Your task to perform on an android device: open app "WhatsApp Messenger" (install if not already installed) Image 0: 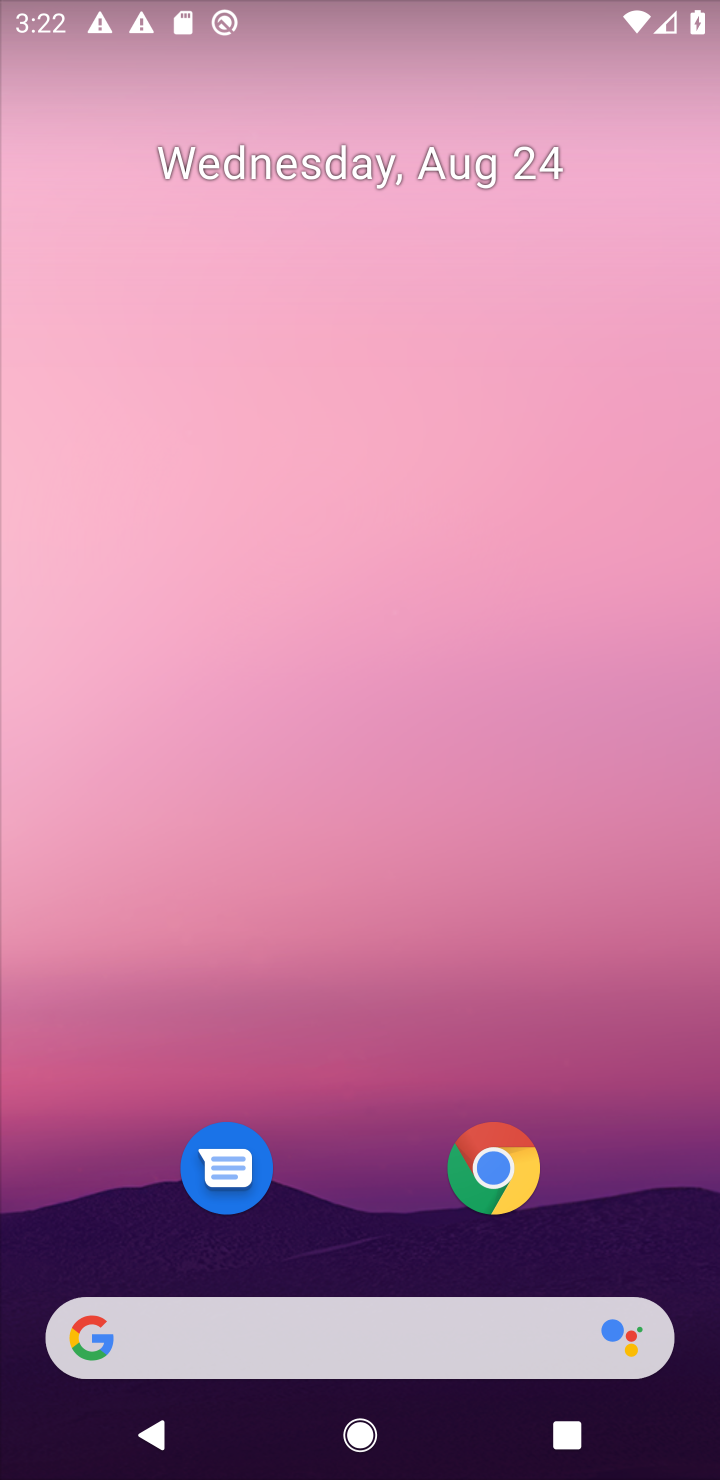
Step 0: drag from (699, 1302) to (593, 26)
Your task to perform on an android device: open app "WhatsApp Messenger" (install if not already installed) Image 1: 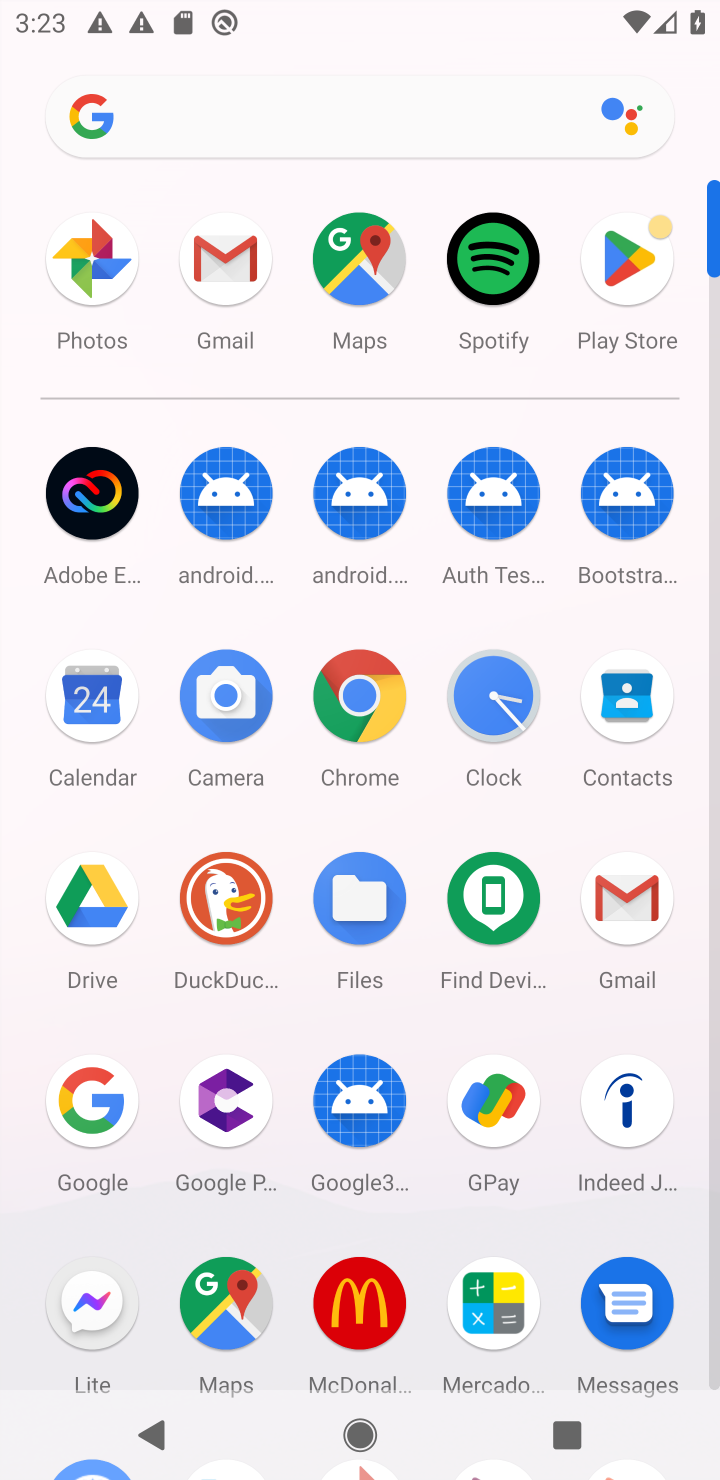
Step 1: click (711, 1309)
Your task to perform on an android device: open app "WhatsApp Messenger" (install if not already installed) Image 2: 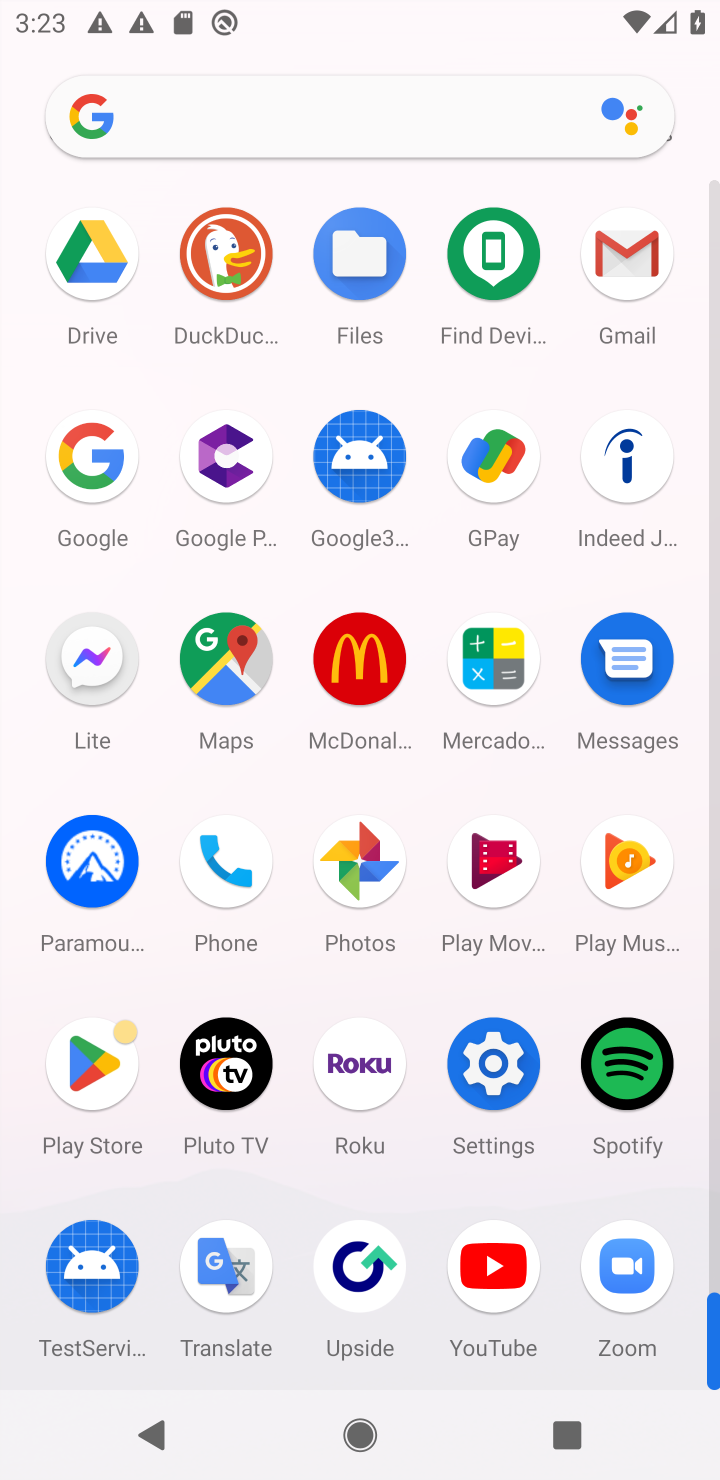
Step 2: click (95, 1051)
Your task to perform on an android device: open app "WhatsApp Messenger" (install if not already installed) Image 3: 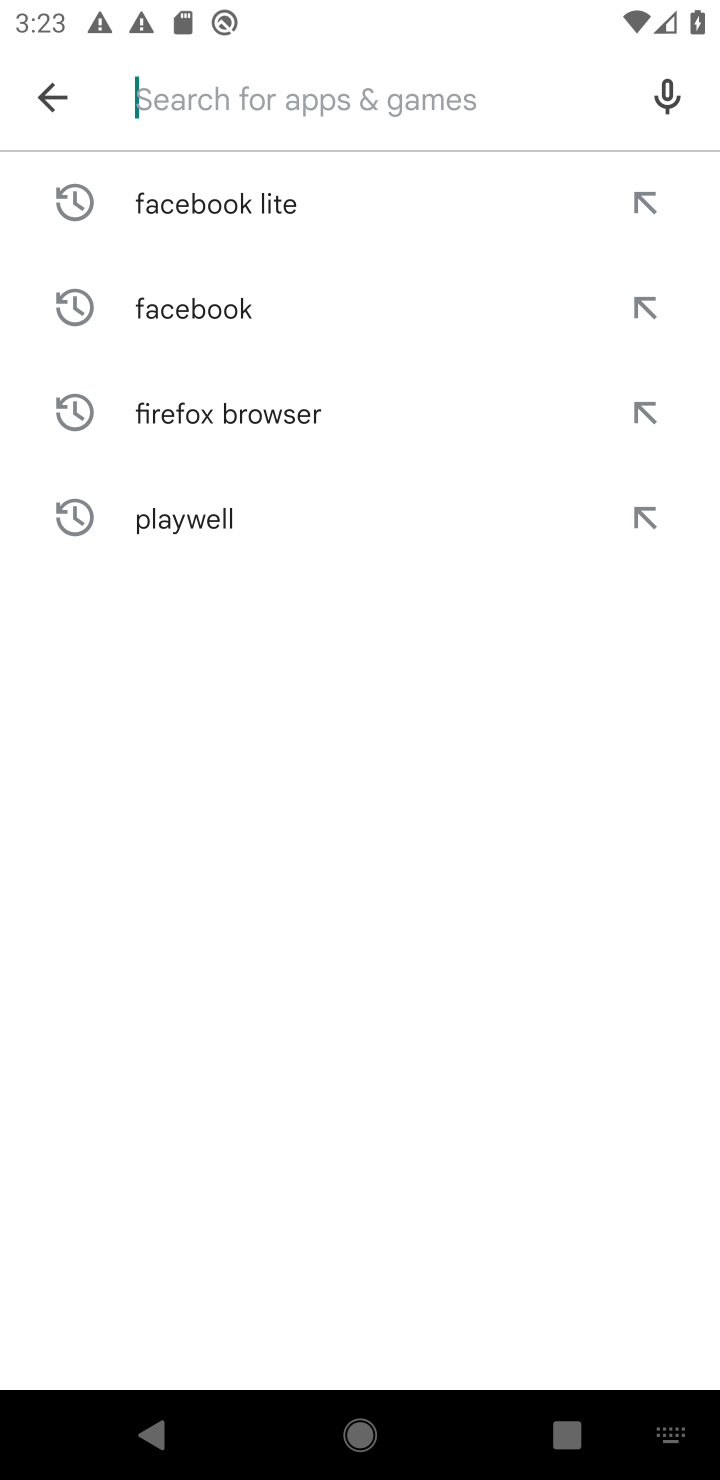
Step 3: type "WhatsApp Messenger"
Your task to perform on an android device: open app "WhatsApp Messenger" (install if not already installed) Image 4: 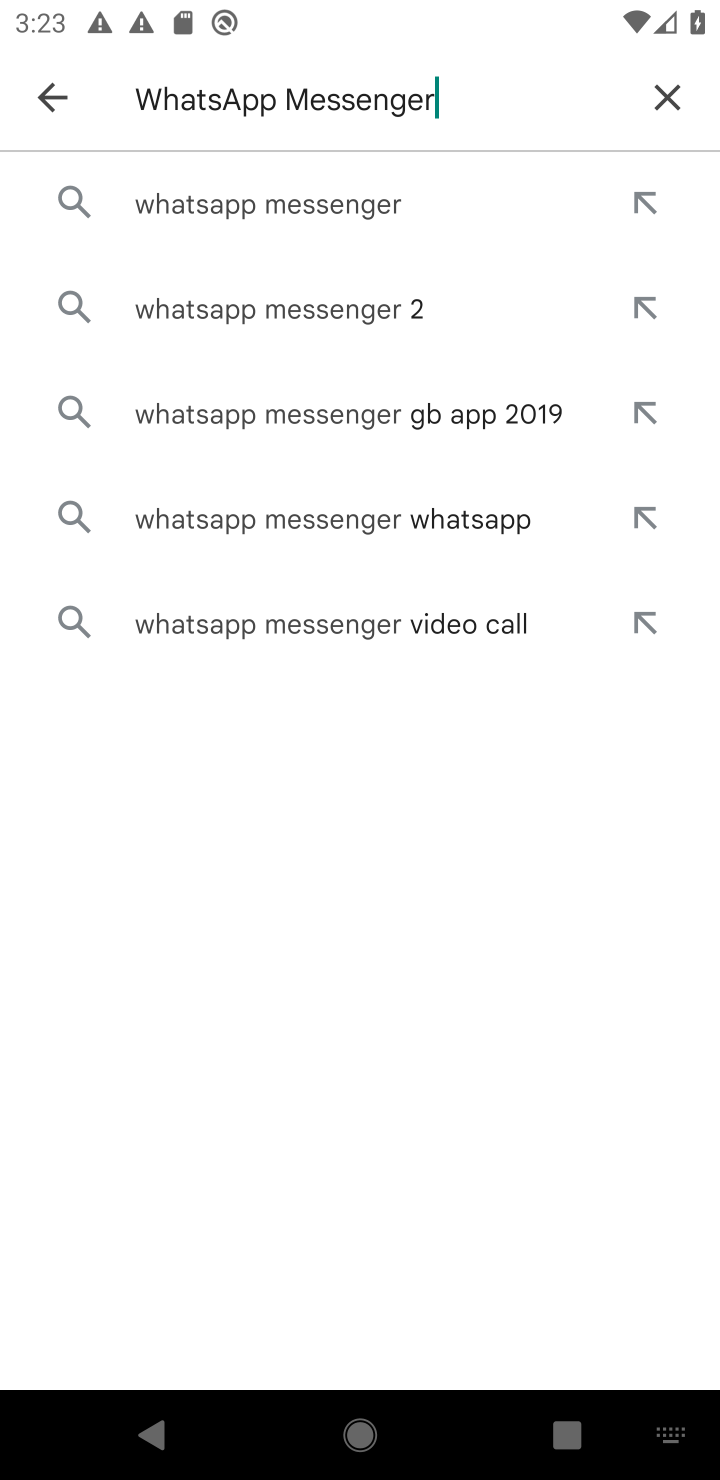
Step 4: click (234, 205)
Your task to perform on an android device: open app "WhatsApp Messenger" (install if not already installed) Image 5: 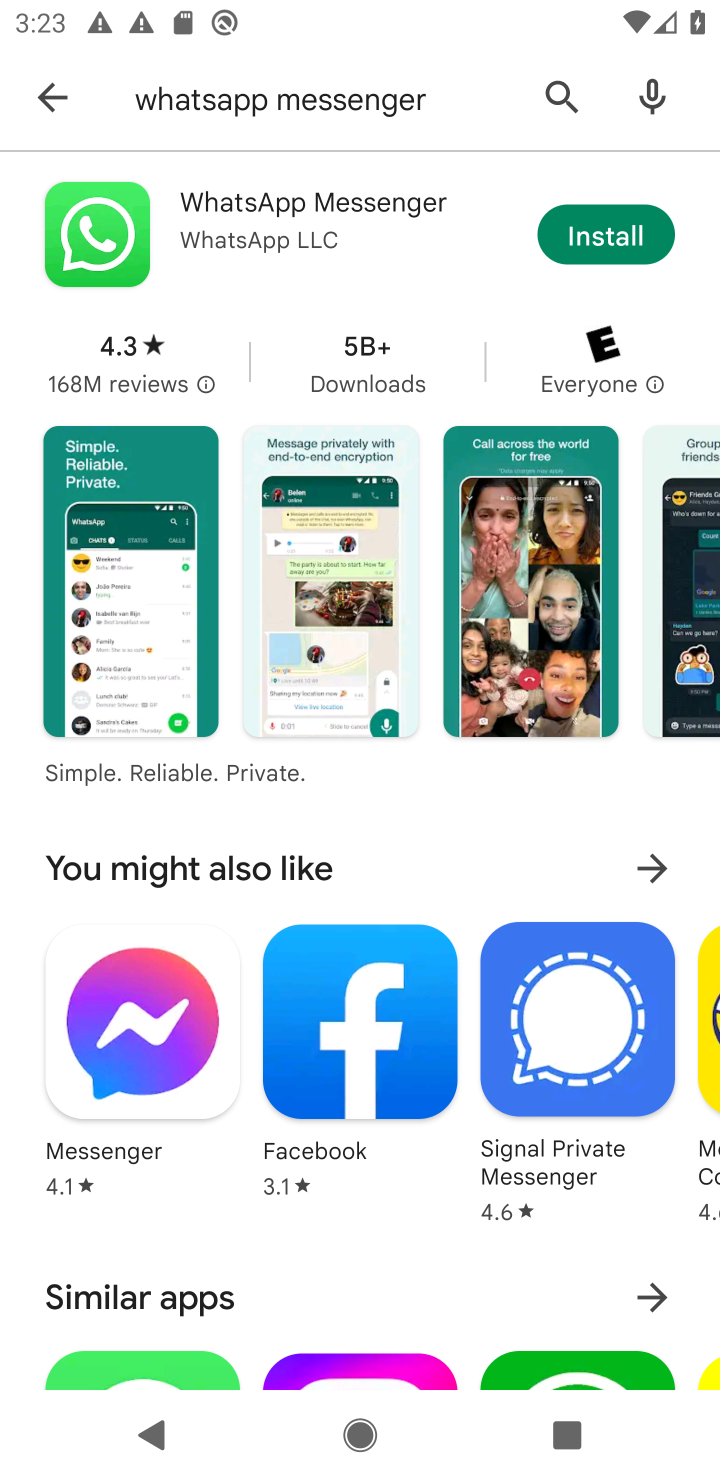
Step 5: click (223, 218)
Your task to perform on an android device: open app "WhatsApp Messenger" (install if not already installed) Image 6: 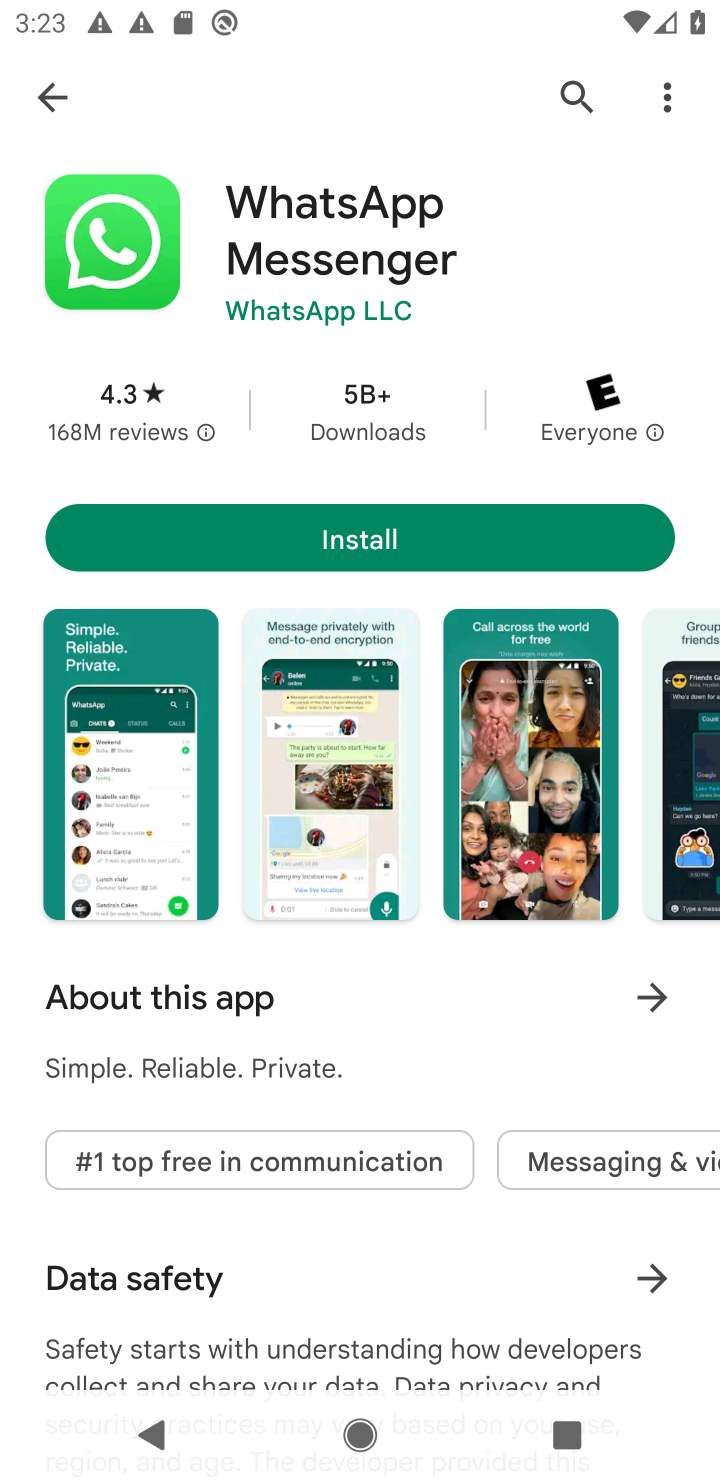
Step 6: click (359, 537)
Your task to perform on an android device: open app "WhatsApp Messenger" (install if not already installed) Image 7: 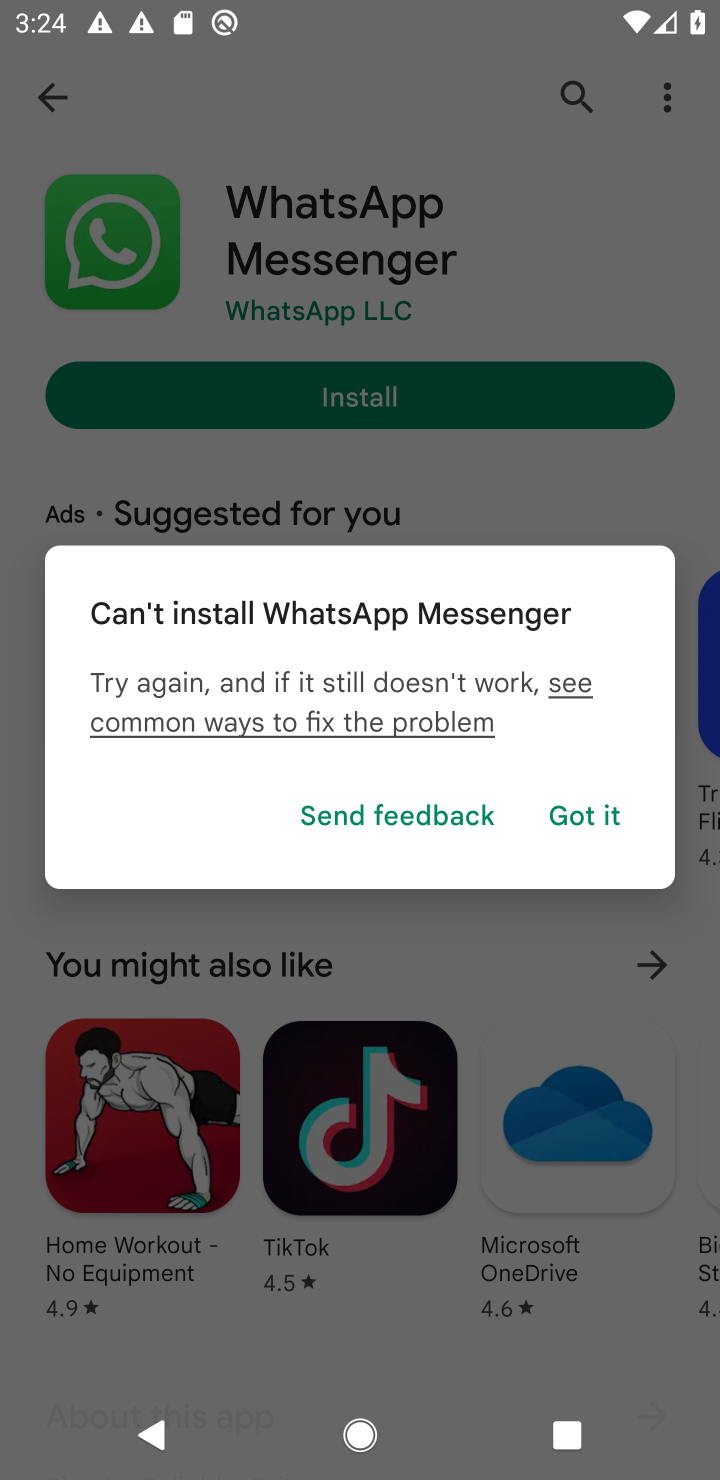
Step 7: click (580, 823)
Your task to perform on an android device: open app "WhatsApp Messenger" (install if not already installed) Image 8: 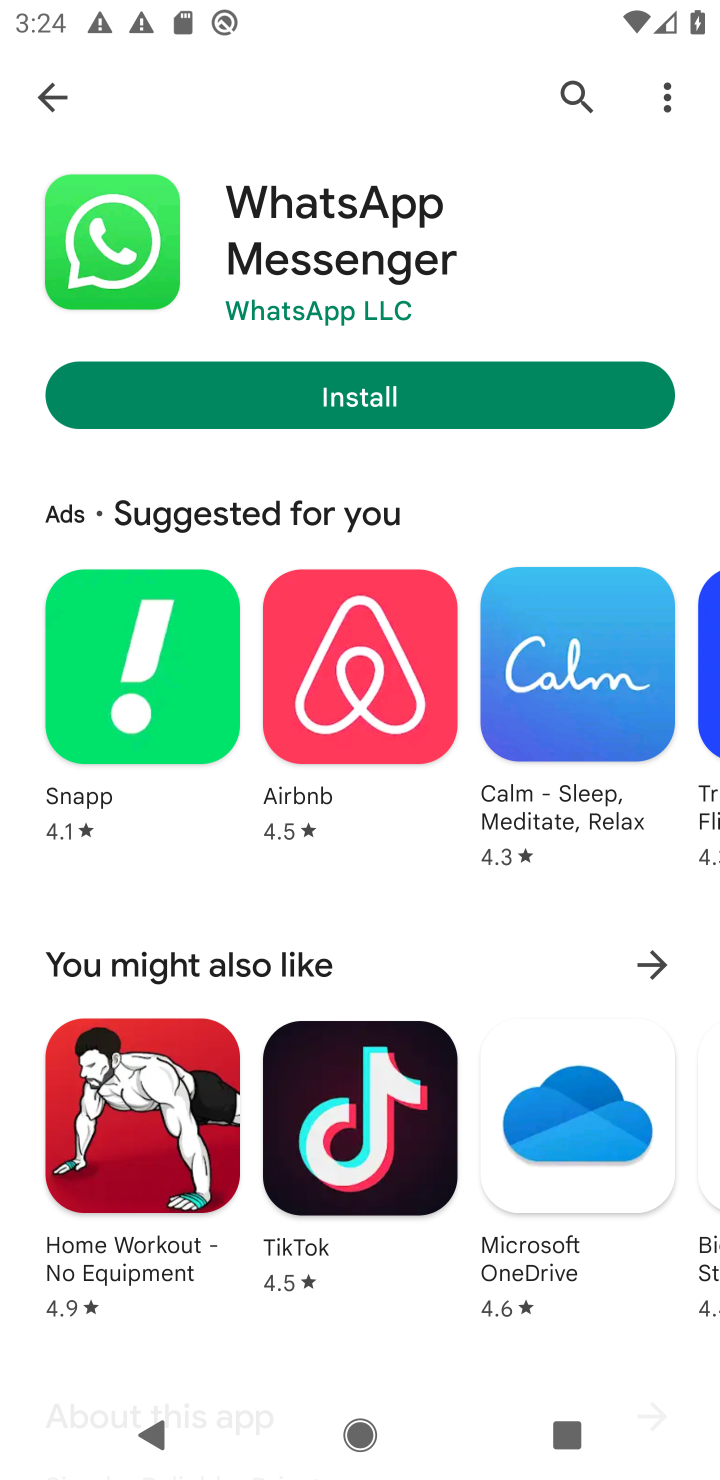
Step 8: task complete